Your task to perform on an android device: find photos in the google photos app Image 0: 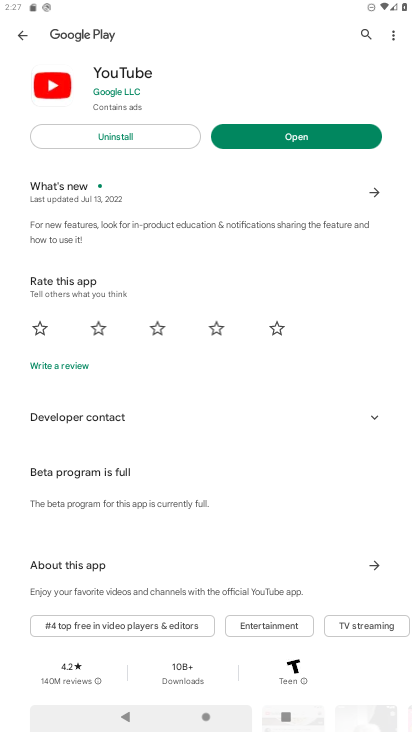
Step 0: press home button
Your task to perform on an android device: find photos in the google photos app Image 1: 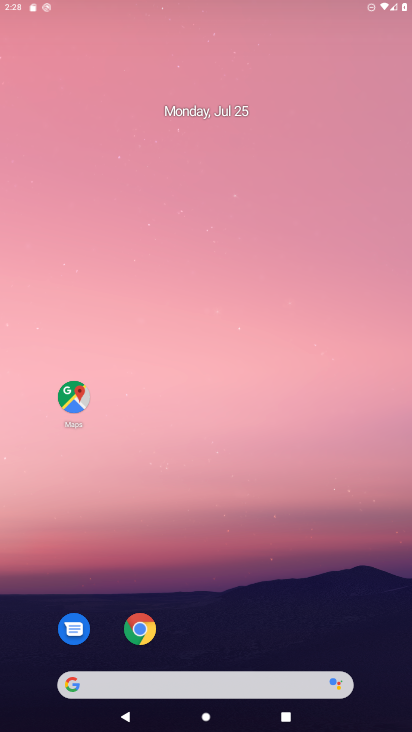
Step 1: drag from (237, 558) to (311, 8)
Your task to perform on an android device: find photos in the google photos app Image 2: 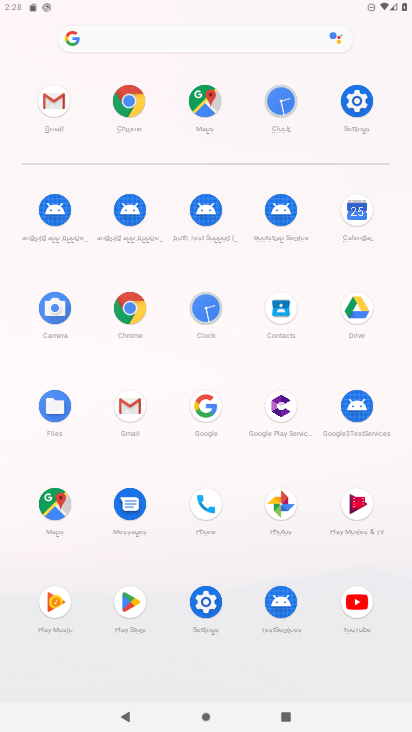
Step 2: click (280, 508)
Your task to perform on an android device: find photos in the google photos app Image 3: 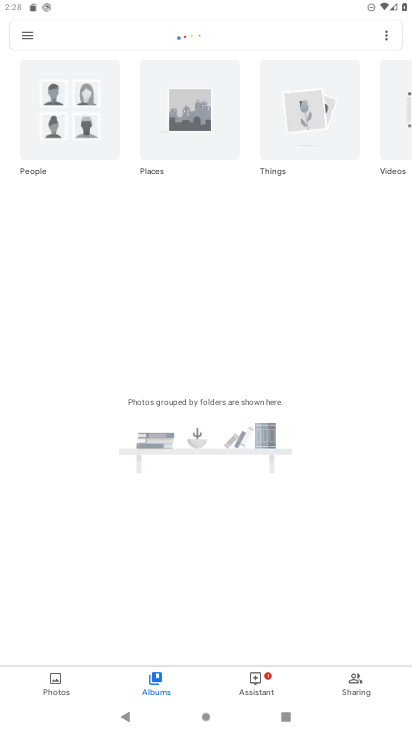
Step 3: click (62, 689)
Your task to perform on an android device: find photos in the google photos app Image 4: 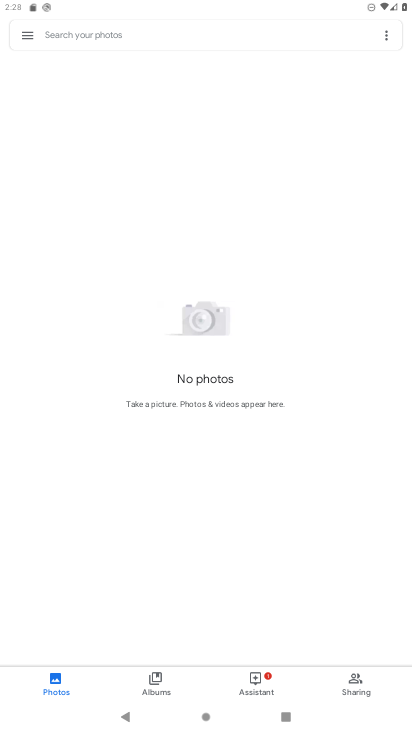
Step 4: task complete